Your task to perform on an android device: Open calendar and show me the second week of next month Image 0: 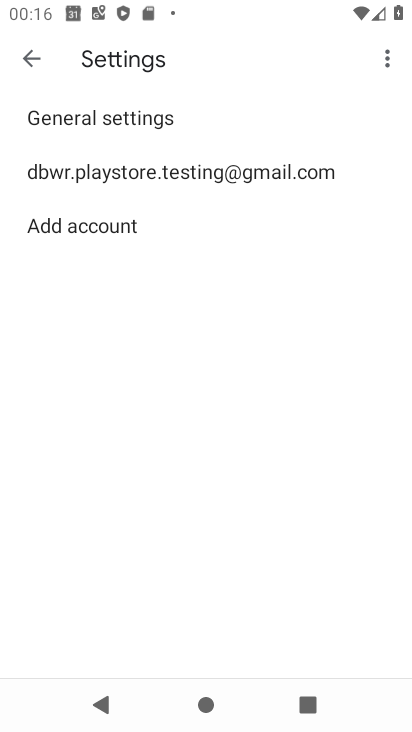
Step 0: press home button
Your task to perform on an android device: Open calendar and show me the second week of next month Image 1: 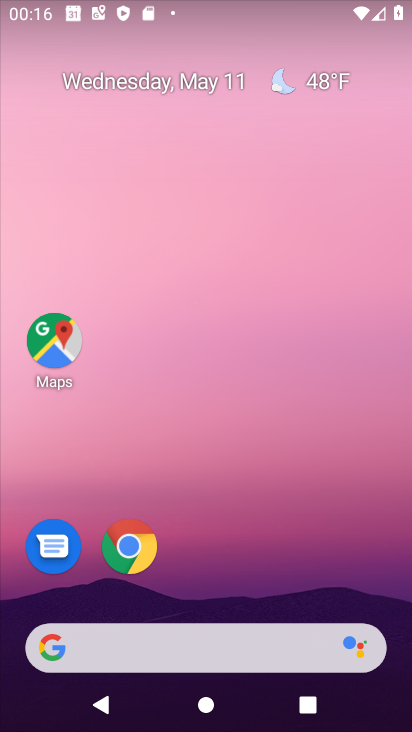
Step 1: drag from (207, 599) to (208, 257)
Your task to perform on an android device: Open calendar and show me the second week of next month Image 2: 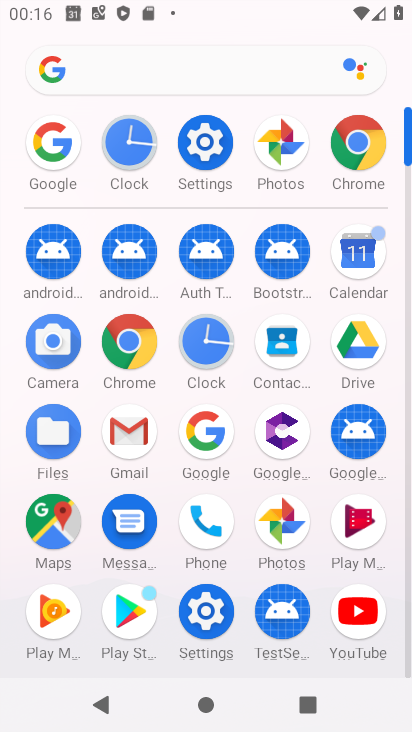
Step 2: click (353, 262)
Your task to perform on an android device: Open calendar and show me the second week of next month Image 3: 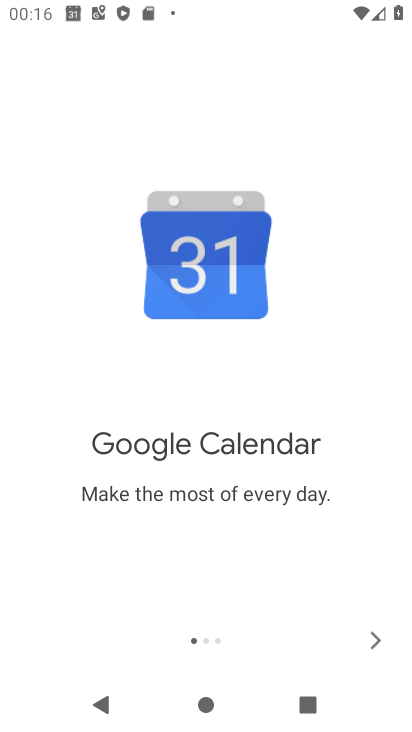
Step 3: click (376, 626)
Your task to perform on an android device: Open calendar and show me the second week of next month Image 4: 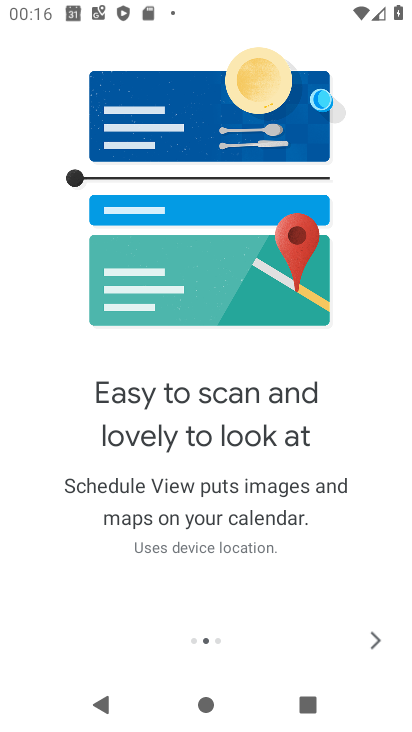
Step 4: click (376, 626)
Your task to perform on an android device: Open calendar and show me the second week of next month Image 5: 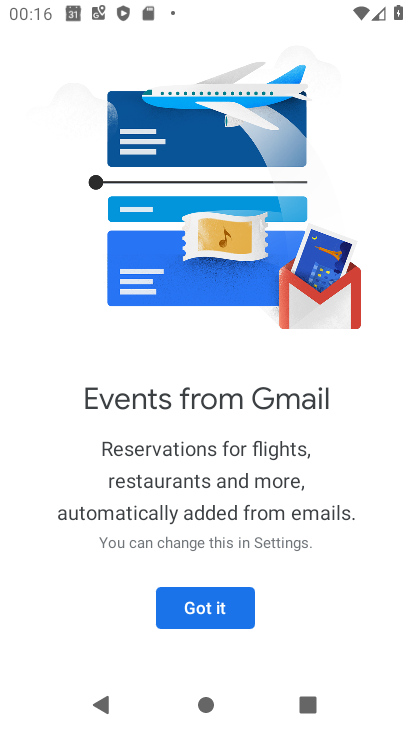
Step 5: click (213, 626)
Your task to perform on an android device: Open calendar and show me the second week of next month Image 6: 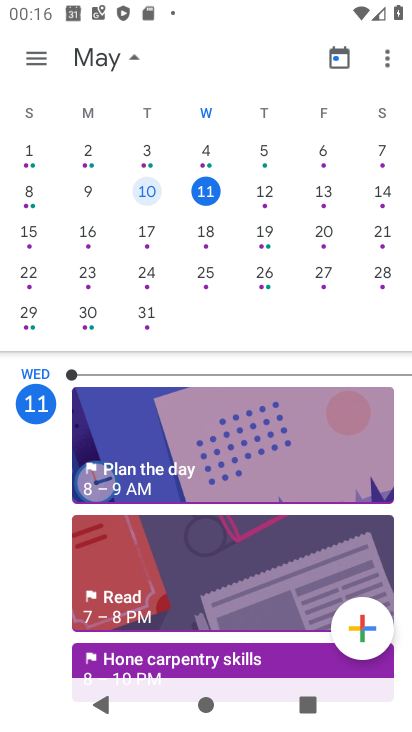
Step 6: drag from (340, 167) to (72, 230)
Your task to perform on an android device: Open calendar and show me the second week of next month Image 7: 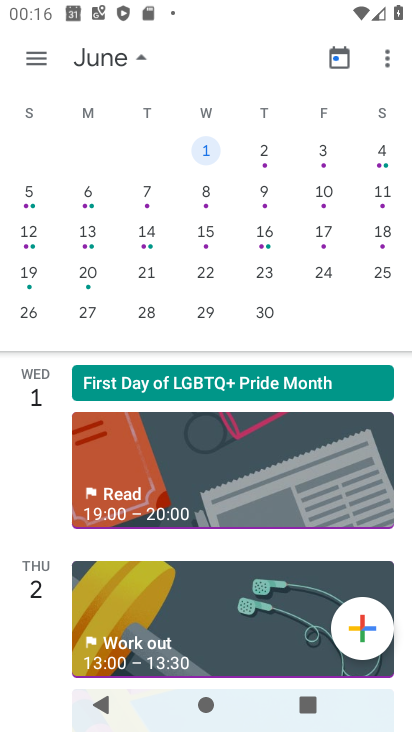
Step 7: click (29, 207)
Your task to perform on an android device: Open calendar and show me the second week of next month Image 8: 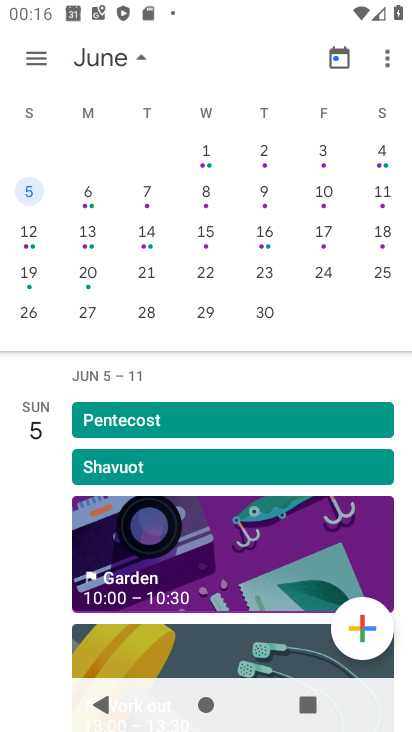
Step 8: task complete